Your task to perform on an android device: Go to Android settings Image 0: 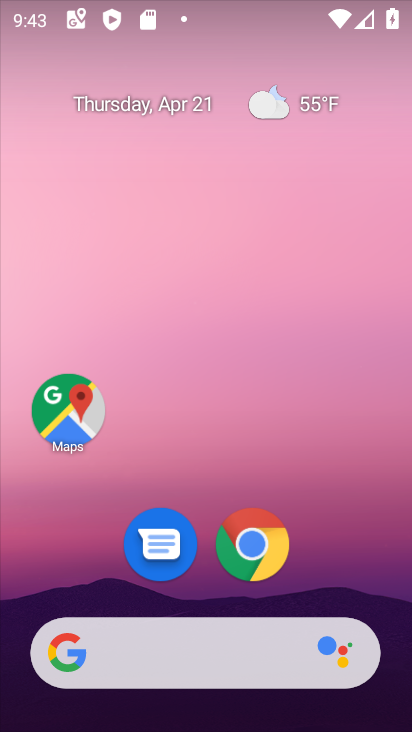
Step 0: drag from (329, 482) to (342, 29)
Your task to perform on an android device: Go to Android settings Image 1: 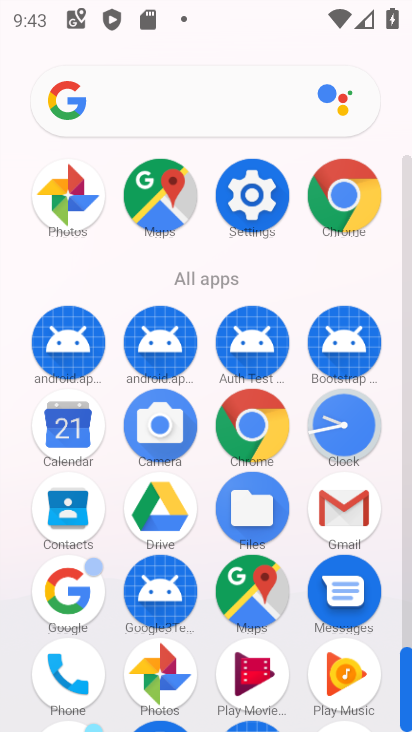
Step 1: click (252, 187)
Your task to perform on an android device: Go to Android settings Image 2: 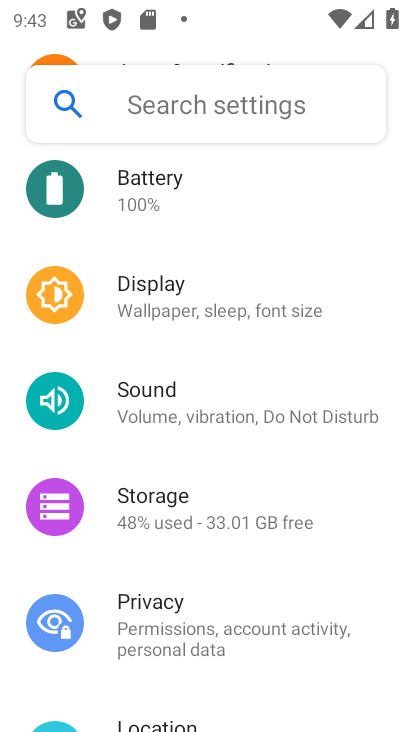
Step 2: task complete